Your task to perform on an android device: Search for Mexican restaurants on Maps Image 0: 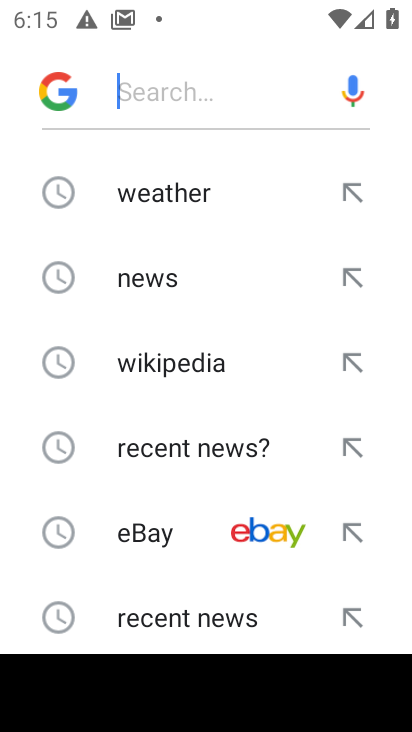
Step 0: press home button
Your task to perform on an android device: Search for Mexican restaurants on Maps Image 1: 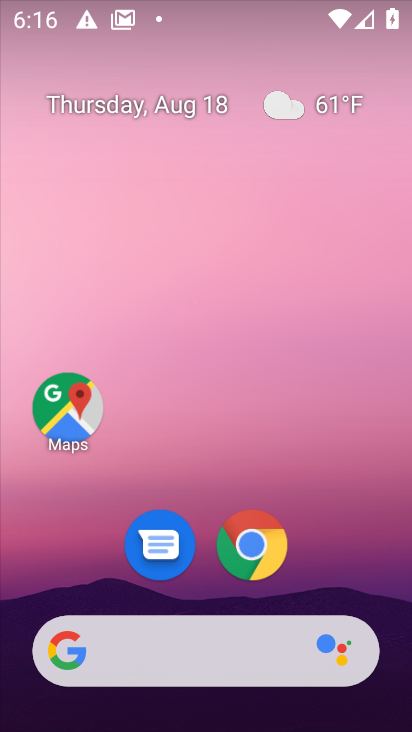
Step 1: click (67, 408)
Your task to perform on an android device: Search for Mexican restaurants on Maps Image 2: 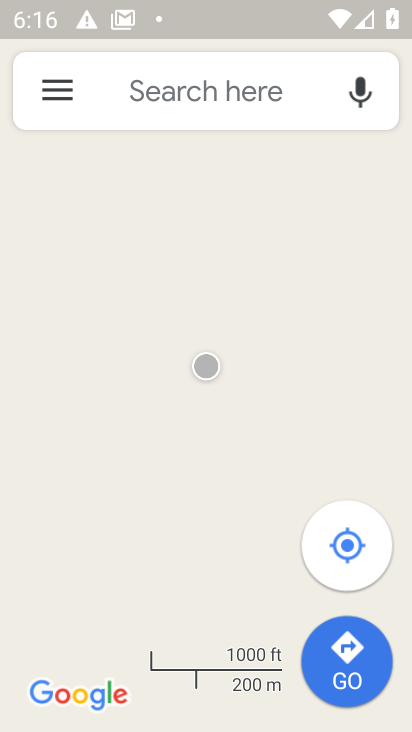
Step 2: click (143, 98)
Your task to perform on an android device: Search for Mexican restaurants on Maps Image 3: 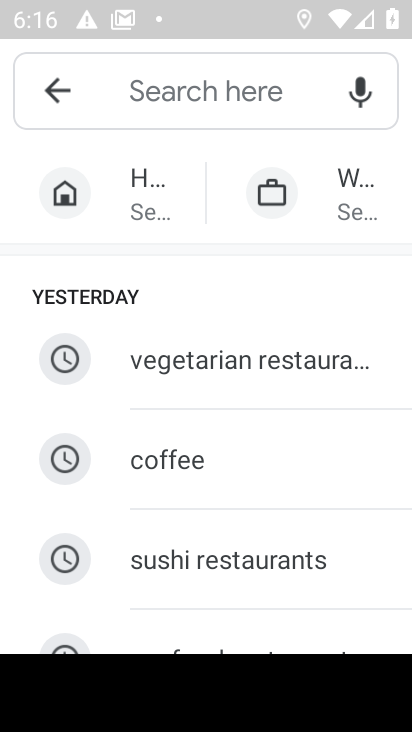
Step 3: type "mexican restaurants"
Your task to perform on an android device: Search for Mexican restaurants on Maps Image 4: 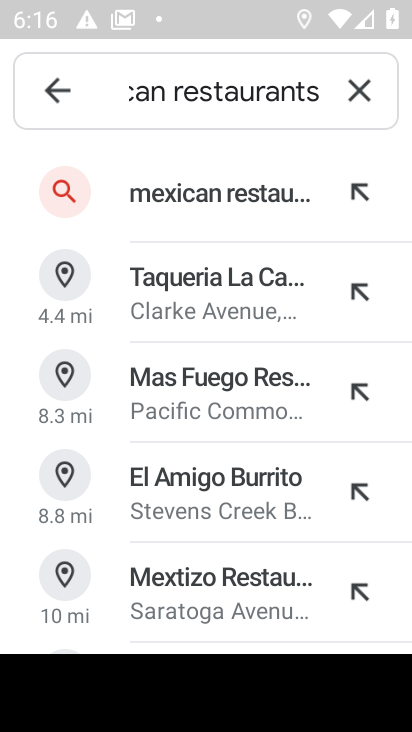
Step 4: click (244, 186)
Your task to perform on an android device: Search for Mexican restaurants on Maps Image 5: 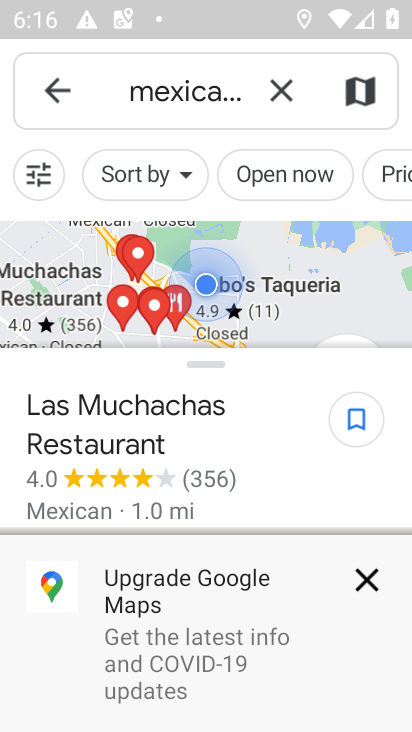
Step 5: click (364, 578)
Your task to perform on an android device: Search for Mexican restaurants on Maps Image 6: 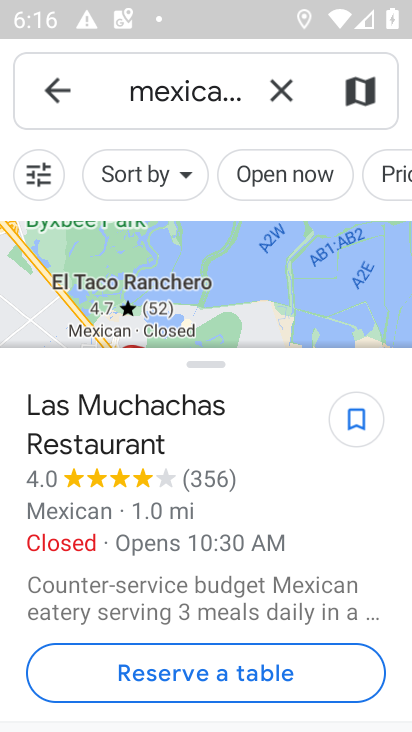
Step 6: task complete